Your task to perform on an android device: Open Google Maps and go to "Timeline" Image 0: 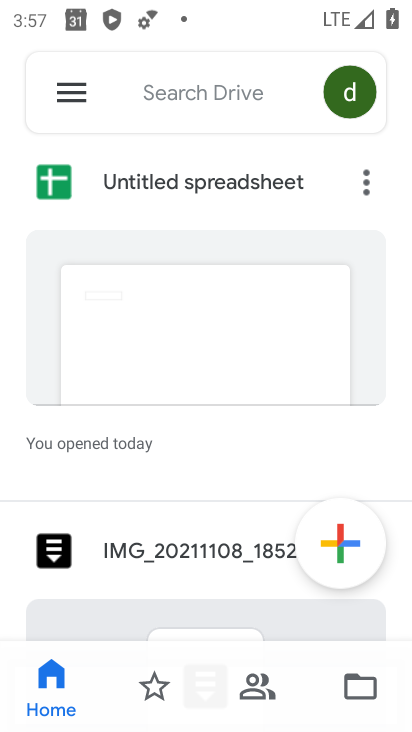
Step 0: press home button
Your task to perform on an android device: Open Google Maps and go to "Timeline" Image 1: 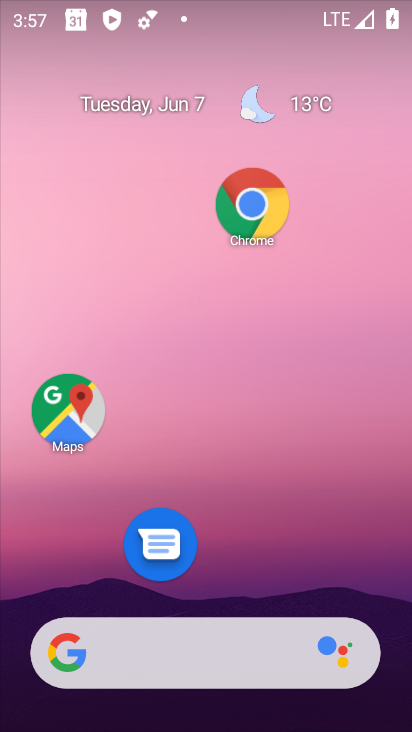
Step 1: click (60, 408)
Your task to perform on an android device: Open Google Maps and go to "Timeline" Image 2: 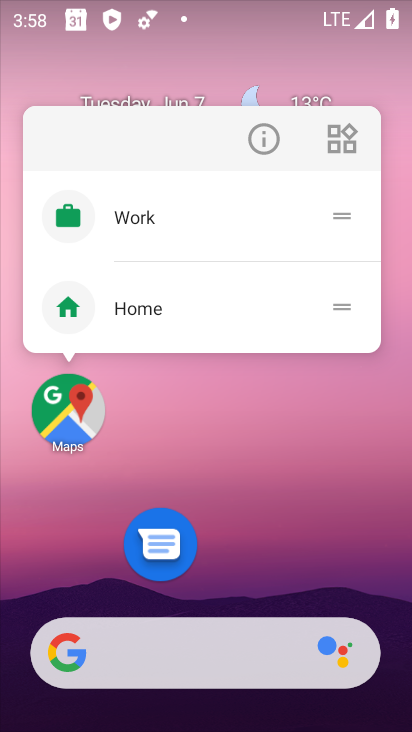
Step 2: click (63, 400)
Your task to perform on an android device: Open Google Maps and go to "Timeline" Image 3: 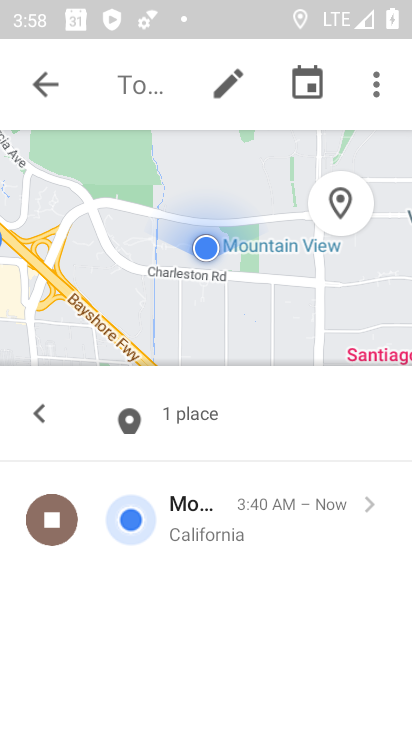
Step 3: task complete